Your task to perform on an android device: Open wifi settings Image 0: 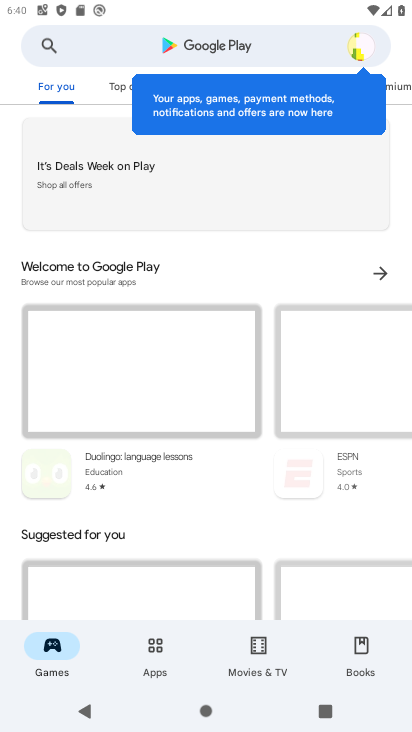
Step 0: press home button
Your task to perform on an android device: Open wifi settings Image 1: 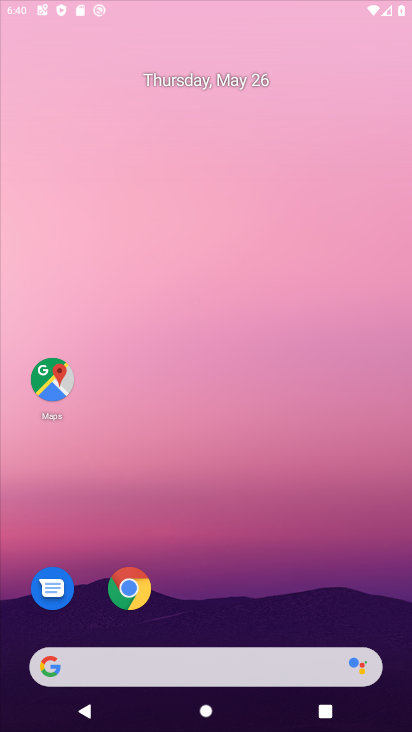
Step 1: drag from (396, 596) to (210, 25)
Your task to perform on an android device: Open wifi settings Image 2: 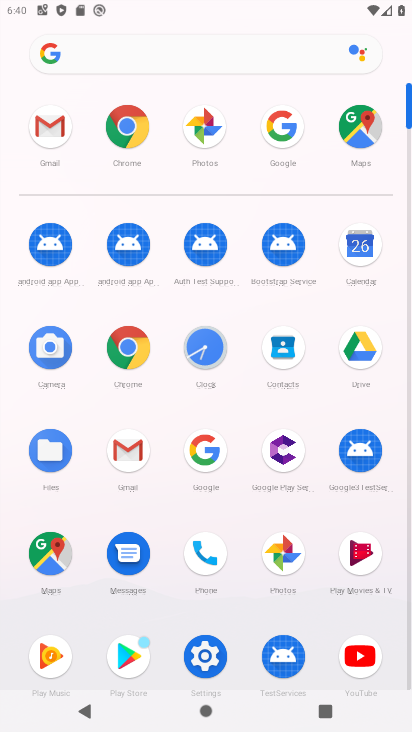
Step 2: click (216, 651)
Your task to perform on an android device: Open wifi settings Image 3: 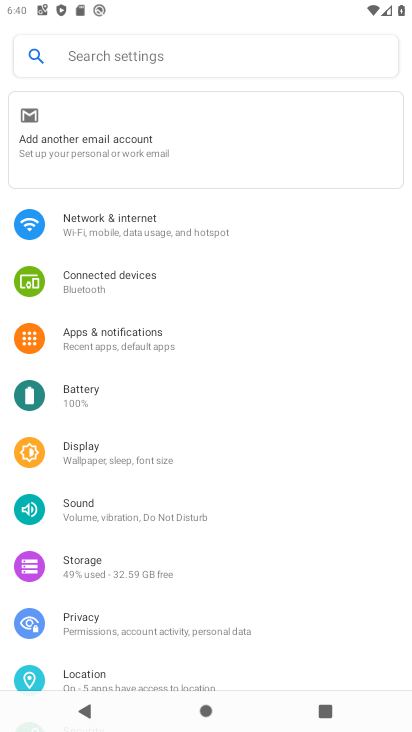
Step 3: click (168, 220)
Your task to perform on an android device: Open wifi settings Image 4: 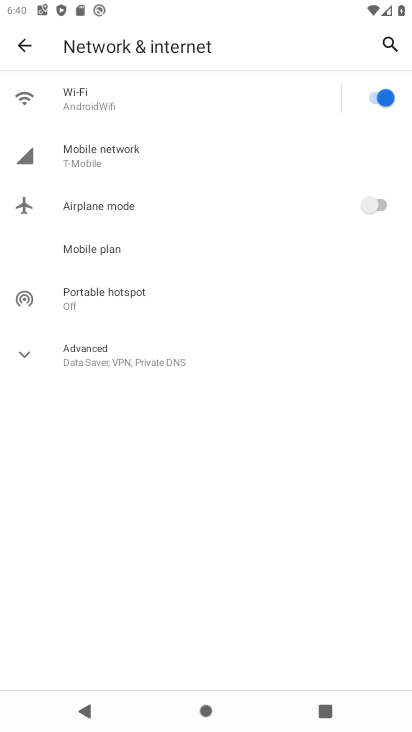
Step 4: click (167, 91)
Your task to perform on an android device: Open wifi settings Image 5: 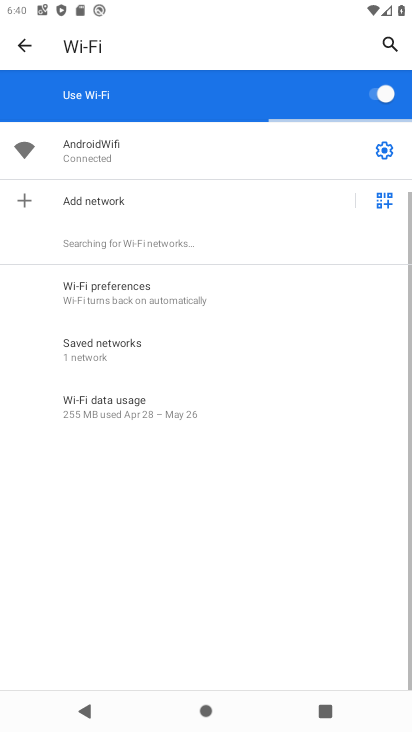
Step 5: task complete